Your task to perform on an android device: uninstall "Microsoft Excel" Image 0: 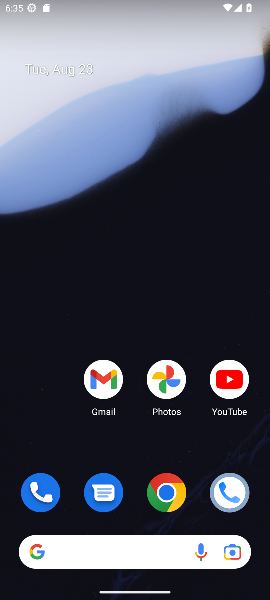
Step 0: drag from (51, 430) to (62, 82)
Your task to perform on an android device: uninstall "Microsoft Excel" Image 1: 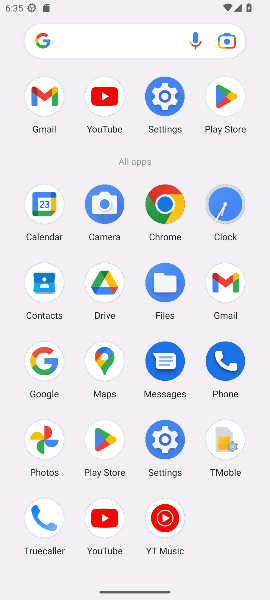
Step 1: click (226, 104)
Your task to perform on an android device: uninstall "Microsoft Excel" Image 2: 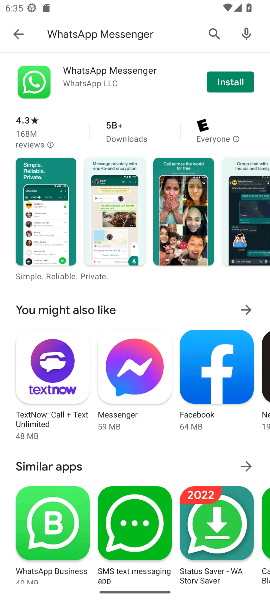
Step 2: press back button
Your task to perform on an android device: uninstall "Microsoft Excel" Image 3: 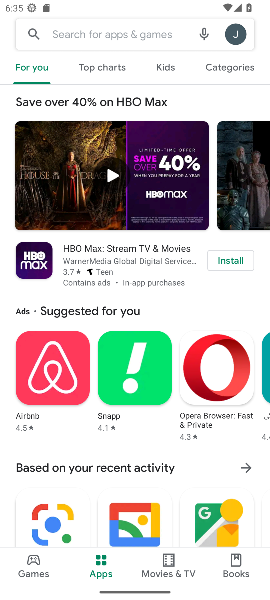
Step 3: click (60, 39)
Your task to perform on an android device: uninstall "Microsoft Excel" Image 4: 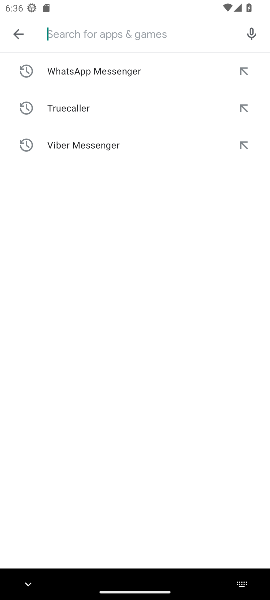
Step 4: type "Microsoft Excel"
Your task to perform on an android device: uninstall "Microsoft Excel" Image 5: 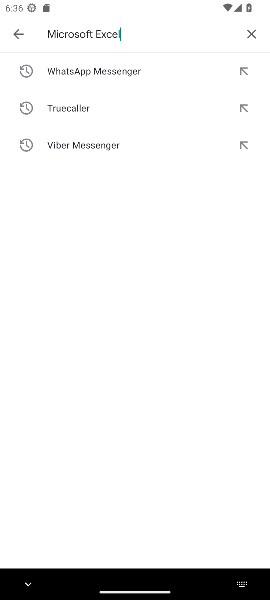
Step 5: press enter
Your task to perform on an android device: uninstall "Microsoft Excel" Image 6: 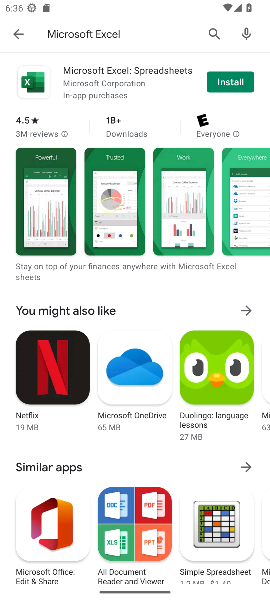
Step 6: task complete